Your task to perform on an android device: Is it going to rain this weekend? Image 0: 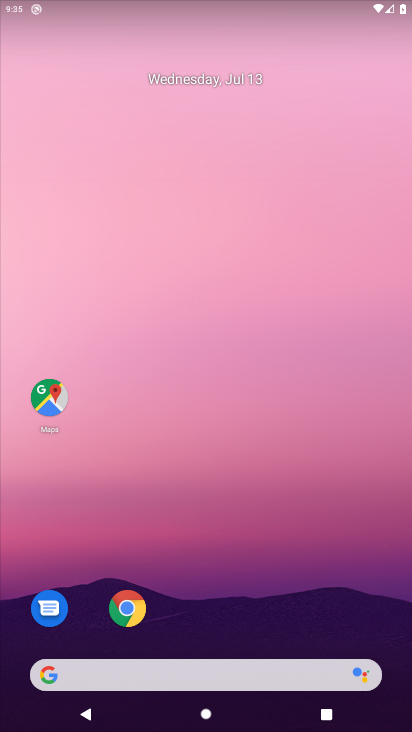
Step 0: click (104, 672)
Your task to perform on an android device: Is it going to rain this weekend? Image 1: 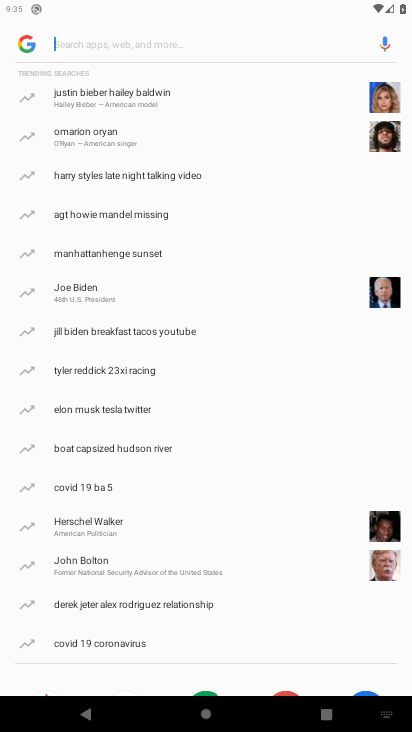
Step 1: type "Is it going to rain this weekend?"
Your task to perform on an android device: Is it going to rain this weekend? Image 2: 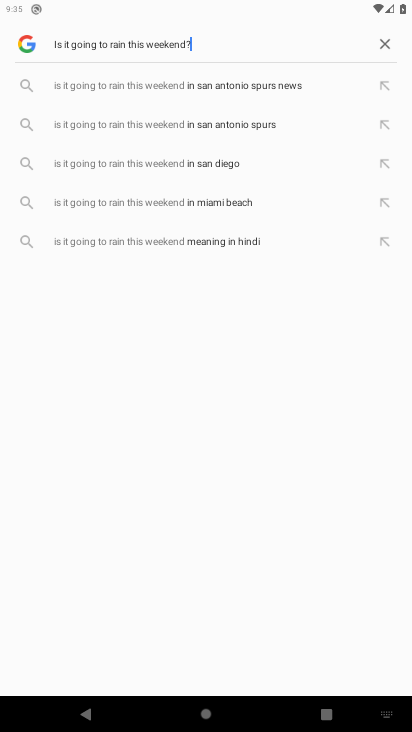
Step 2: type ""
Your task to perform on an android device: Is it going to rain this weekend? Image 3: 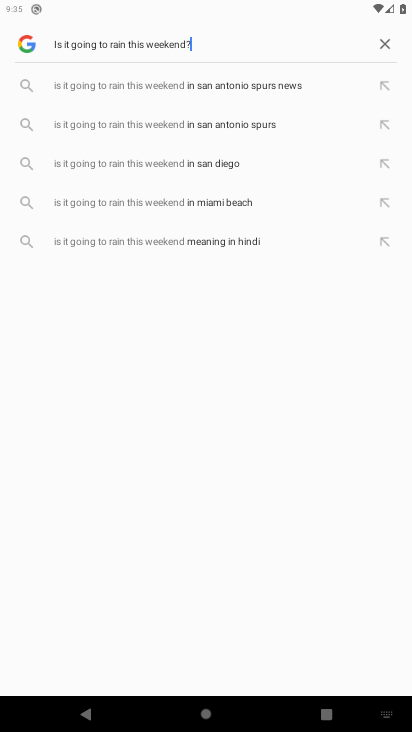
Step 3: type ""
Your task to perform on an android device: Is it going to rain this weekend? Image 4: 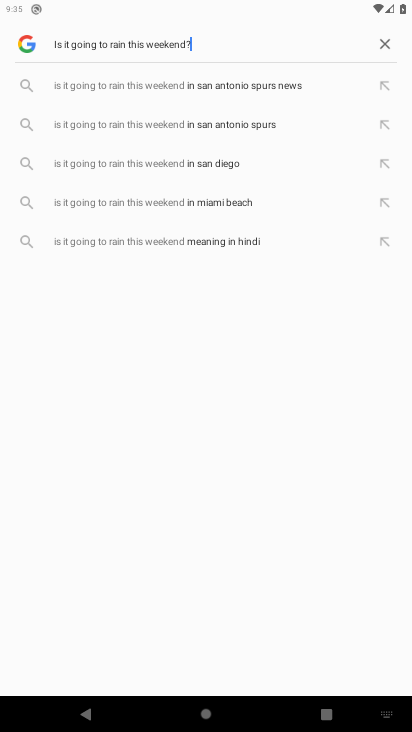
Step 4: task complete